Your task to perform on an android device: turn on translation in the chrome app Image 0: 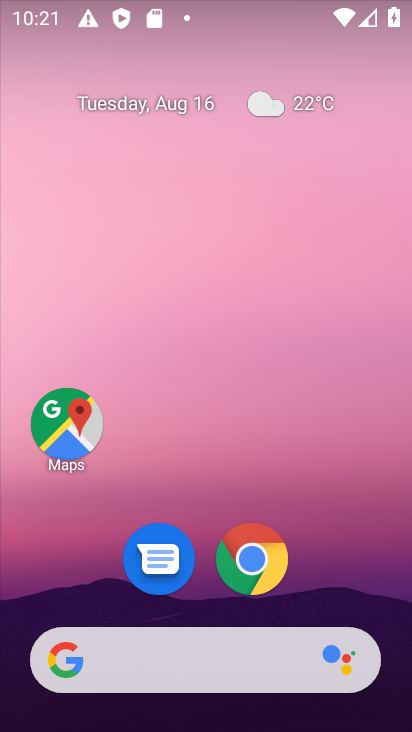
Step 0: click (260, 560)
Your task to perform on an android device: turn on translation in the chrome app Image 1: 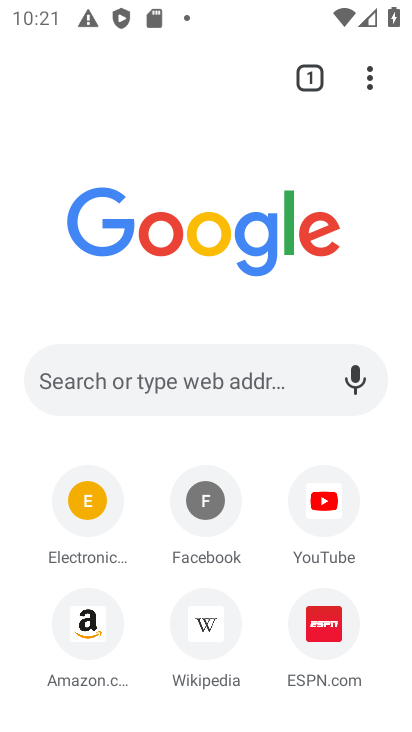
Step 1: click (369, 73)
Your task to perform on an android device: turn on translation in the chrome app Image 2: 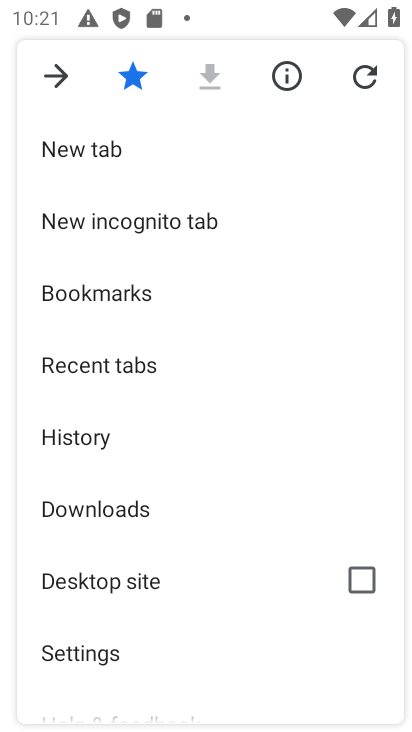
Step 2: click (100, 654)
Your task to perform on an android device: turn on translation in the chrome app Image 3: 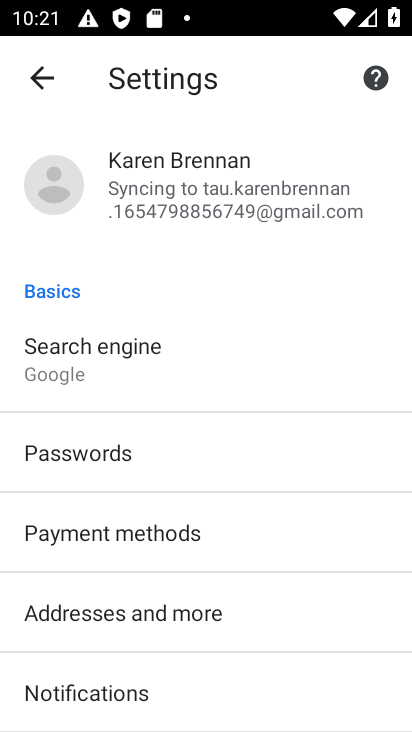
Step 3: drag from (197, 670) to (206, 345)
Your task to perform on an android device: turn on translation in the chrome app Image 4: 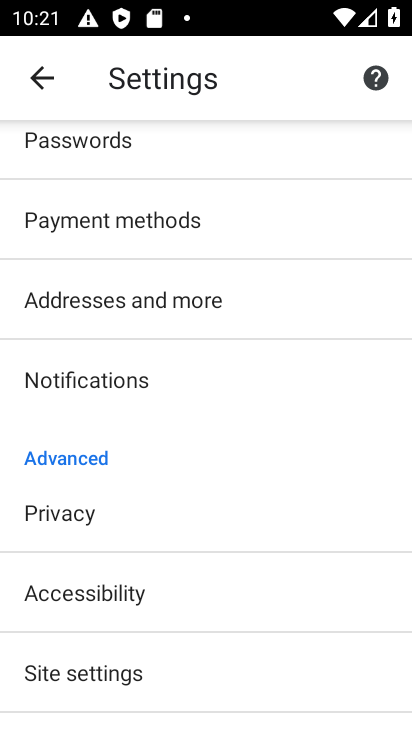
Step 4: drag from (172, 597) to (216, 281)
Your task to perform on an android device: turn on translation in the chrome app Image 5: 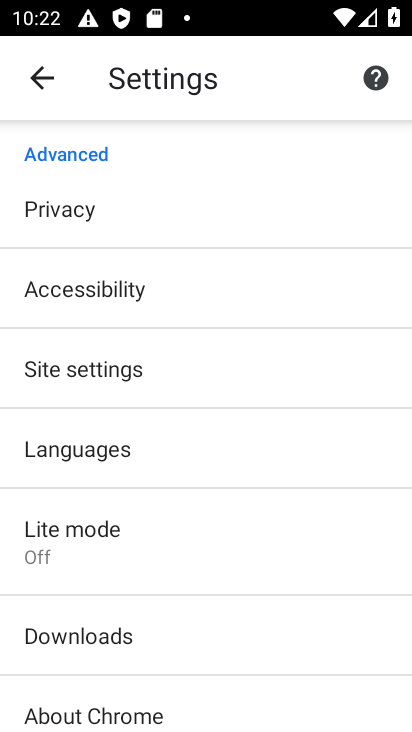
Step 5: drag from (150, 611) to (183, 331)
Your task to perform on an android device: turn on translation in the chrome app Image 6: 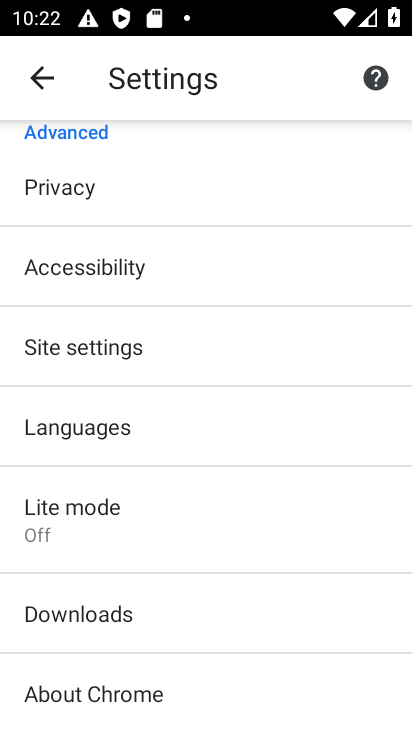
Step 6: click (82, 431)
Your task to perform on an android device: turn on translation in the chrome app Image 7: 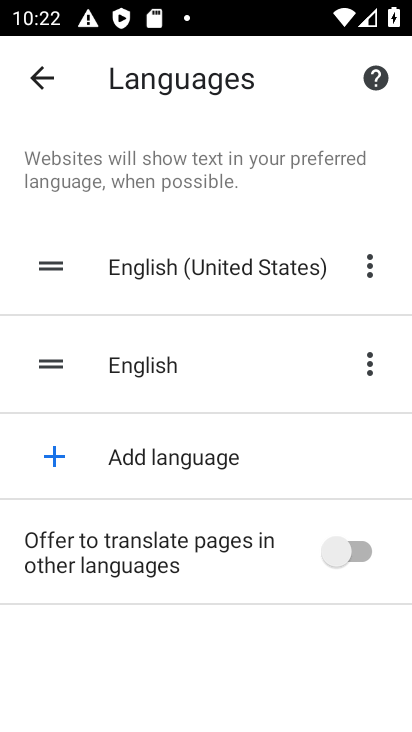
Step 7: click (361, 553)
Your task to perform on an android device: turn on translation in the chrome app Image 8: 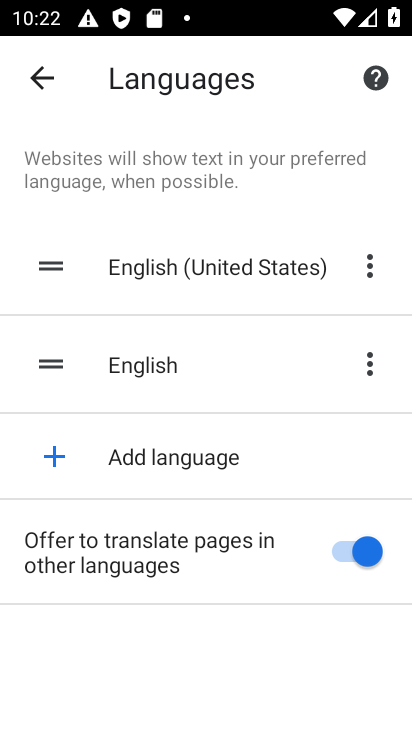
Step 8: task complete